Your task to perform on an android device: Open calendar and show me the first week of next month Image 0: 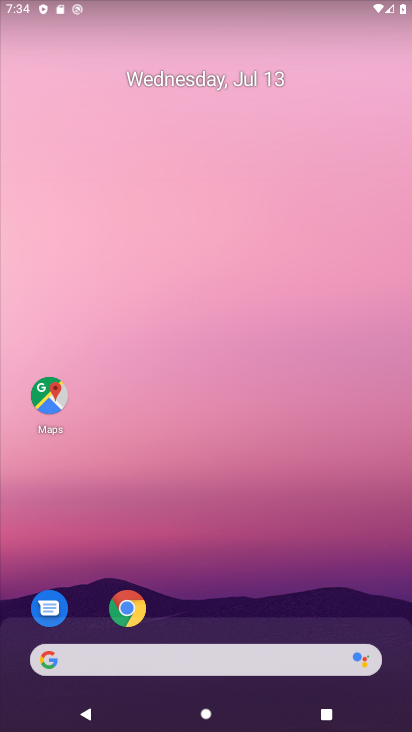
Step 0: drag from (216, 674) to (223, 102)
Your task to perform on an android device: Open calendar and show me the first week of next month Image 1: 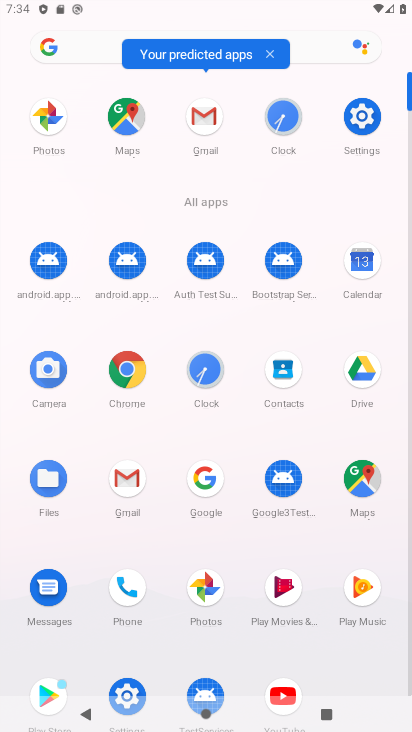
Step 1: click (350, 270)
Your task to perform on an android device: Open calendar and show me the first week of next month Image 2: 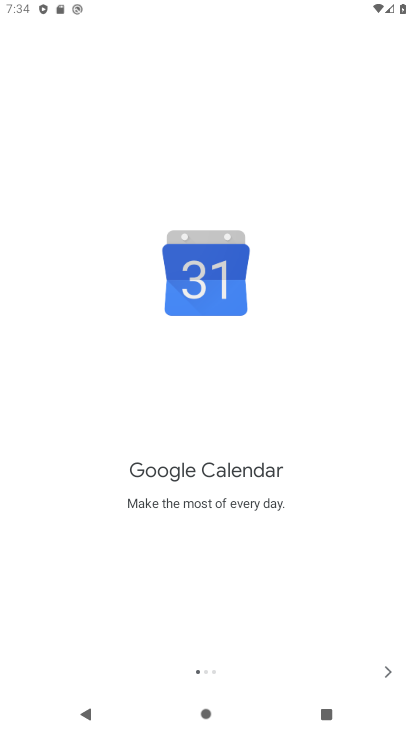
Step 2: click (386, 672)
Your task to perform on an android device: Open calendar and show me the first week of next month Image 3: 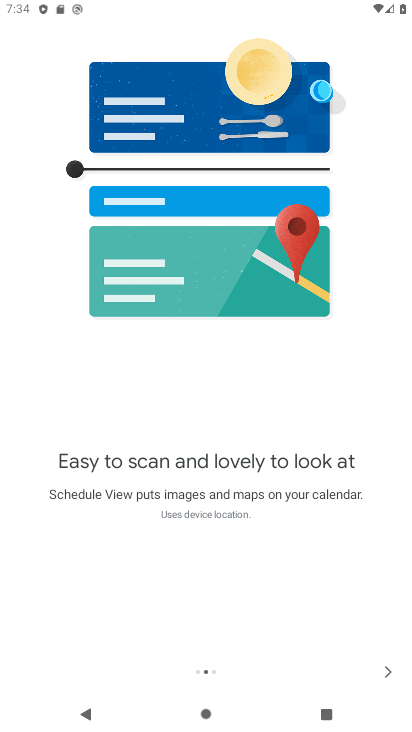
Step 3: click (376, 668)
Your task to perform on an android device: Open calendar and show me the first week of next month Image 4: 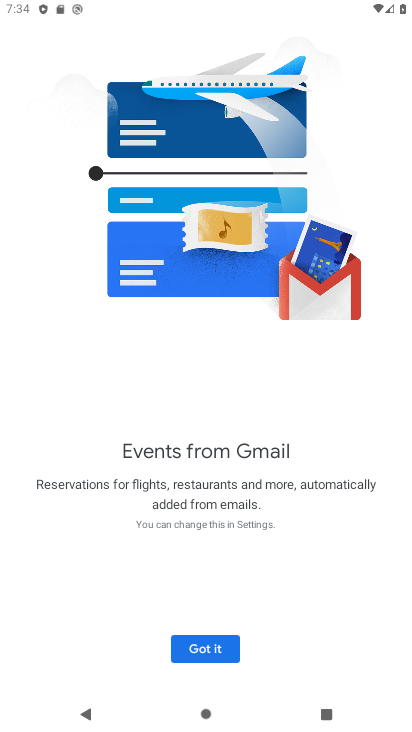
Step 4: click (225, 650)
Your task to perform on an android device: Open calendar and show me the first week of next month Image 5: 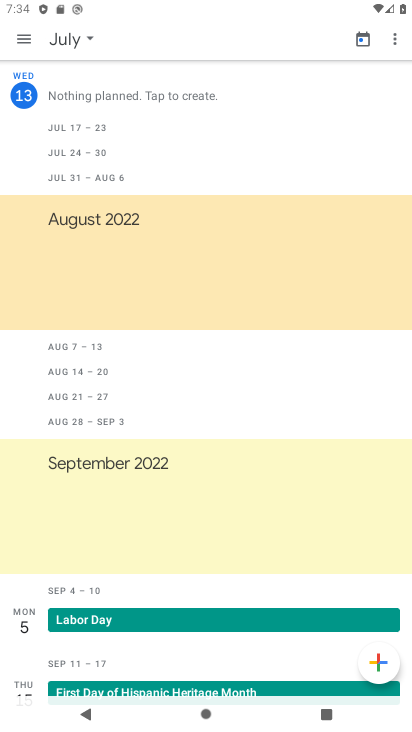
Step 5: click (16, 41)
Your task to perform on an android device: Open calendar and show me the first week of next month Image 6: 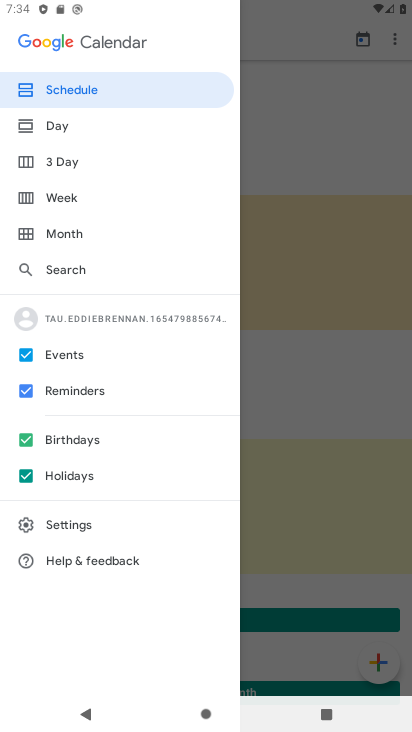
Step 6: click (70, 189)
Your task to perform on an android device: Open calendar and show me the first week of next month Image 7: 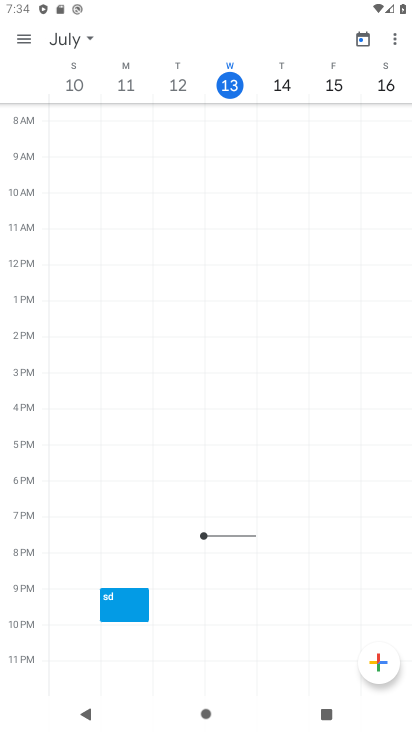
Step 7: task complete